Your task to perform on an android device: see tabs open on other devices in the chrome app Image 0: 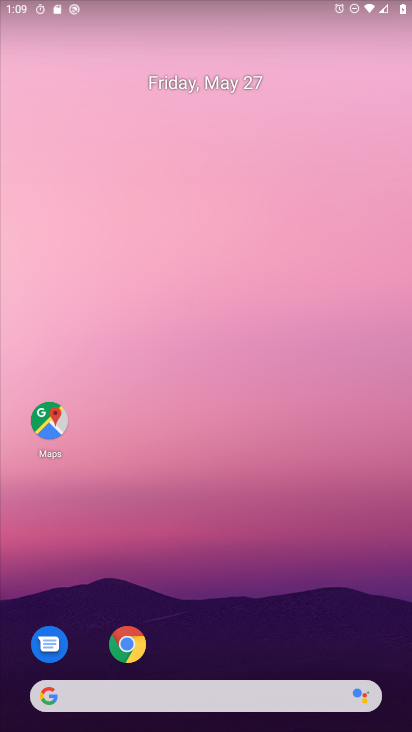
Step 0: click (141, 641)
Your task to perform on an android device: see tabs open on other devices in the chrome app Image 1: 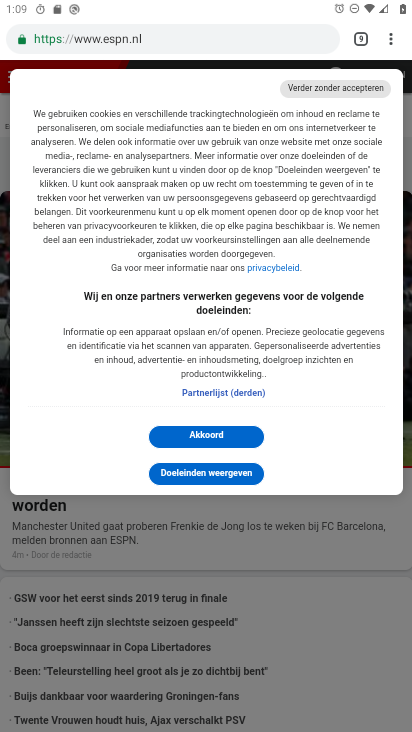
Step 1: click (194, 434)
Your task to perform on an android device: see tabs open on other devices in the chrome app Image 2: 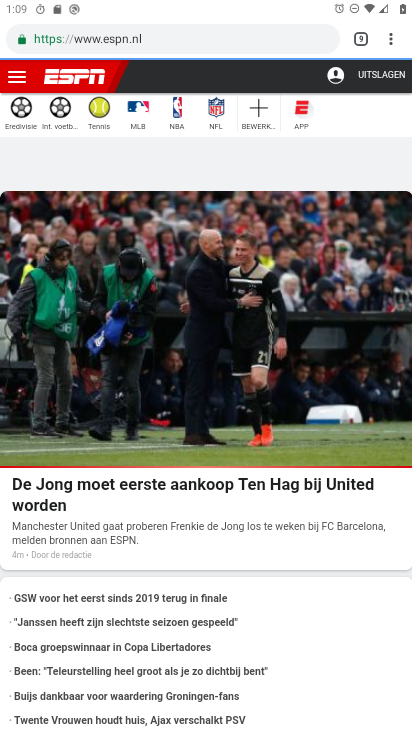
Step 2: task complete